Your task to perform on an android device: open device folders in google photos Image 0: 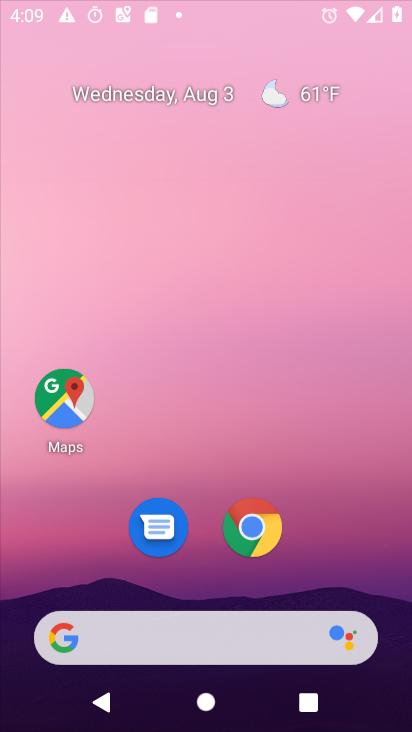
Step 0: drag from (340, 129) to (345, 84)
Your task to perform on an android device: open device folders in google photos Image 1: 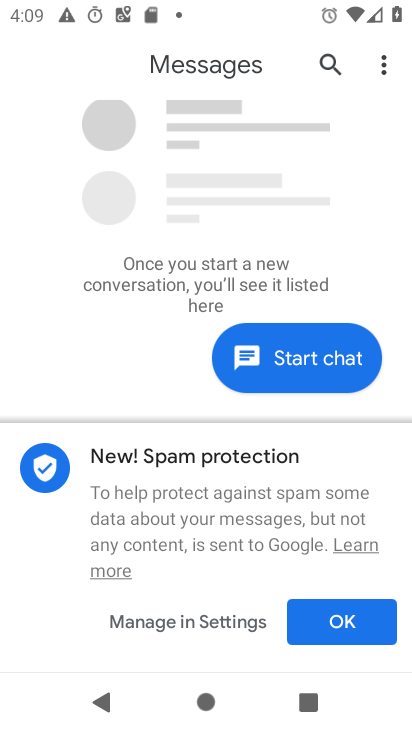
Step 1: press home button
Your task to perform on an android device: open device folders in google photos Image 2: 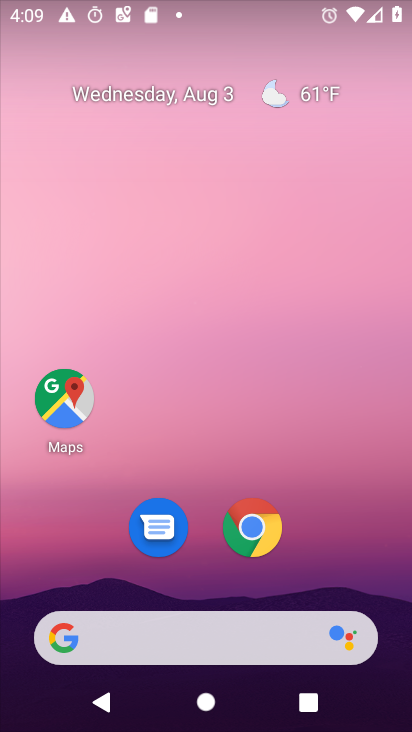
Step 2: drag from (331, 538) to (319, 57)
Your task to perform on an android device: open device folders in google photos Image 3: 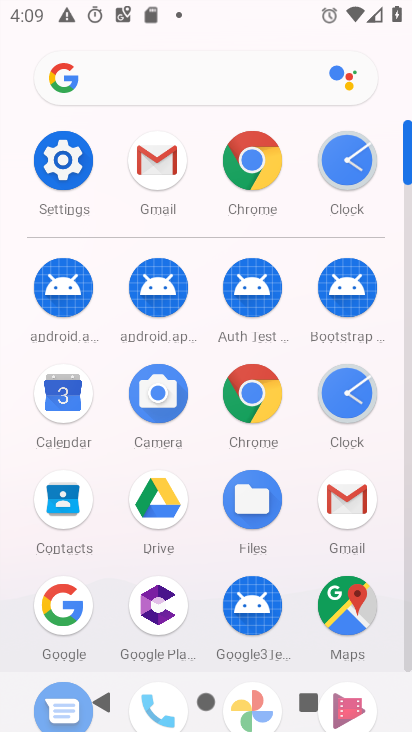
Step 3: drag from (210, 591) to (223, 271)
Your task to perform on an android device: open device folders in google photos Image 4: 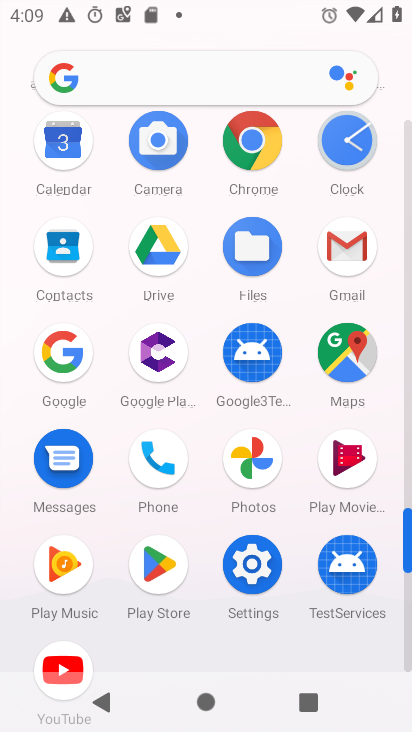
Step 4: click (240, 466)
Your task to perform on an android device: open device folders in google photos Image 5: 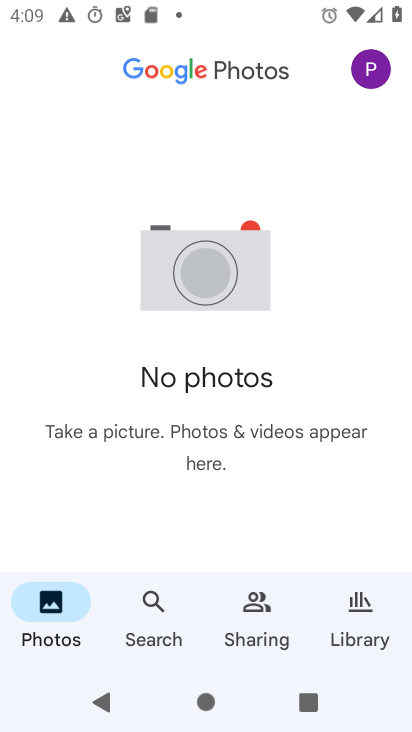
Step 5: click (357, 617)
Your task to perform on an android device: open device folders in google photos Image 6: 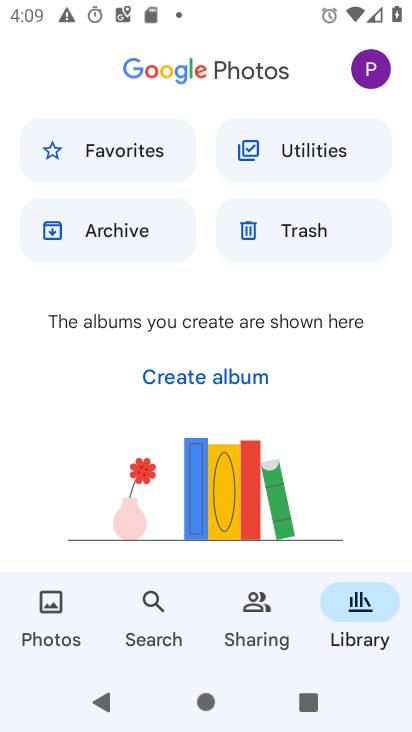
Step 6: click (335, 154)
Your task to perform on an android device: open device folders in google photos Image 7: 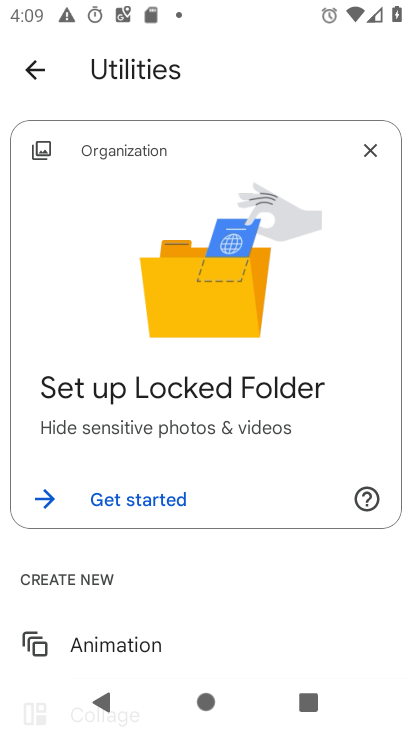
Step 7: drag from (266, 592) to (306, 108)
Your task to perform on an android device: open device folders in google photos Image 8: 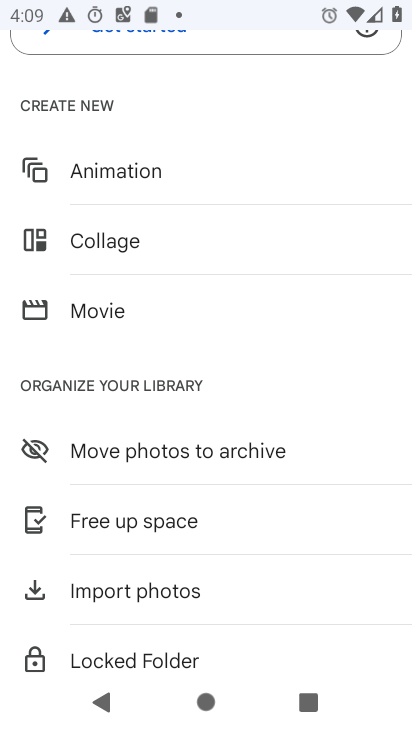
Step 8: drag from (295, 644) to (323, 246)
Your task to perform on an android device: open device folders in google photos Image 9: 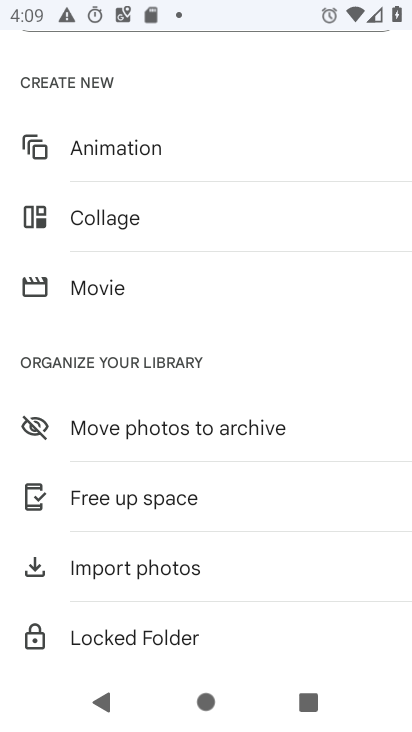
Step 9: press back button
Your task to perform on an android device: open device folders in google photos Image 10: 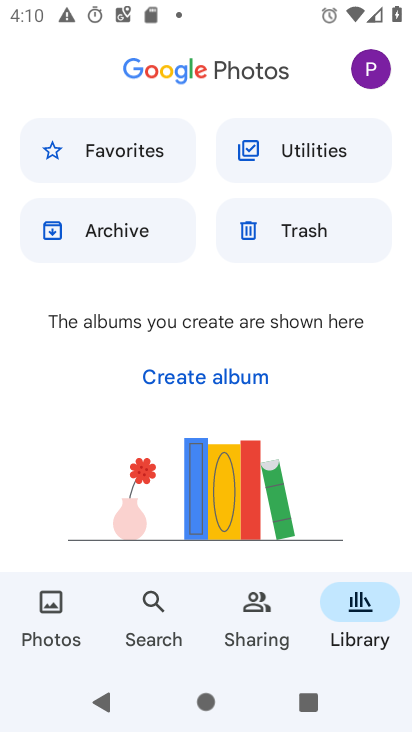
Step 10: click (140, 224)
Your task to perform on an android device: open device folders in google photos Image 11: 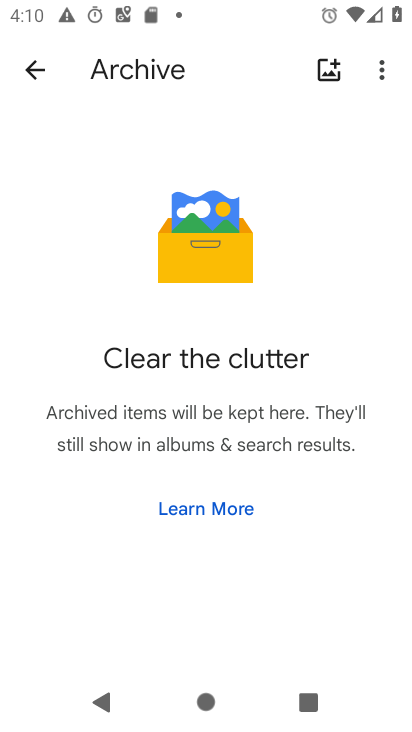
Step 11: click (36, 67)
Your task to perform on an android device: open device folders in google photos Image 12: 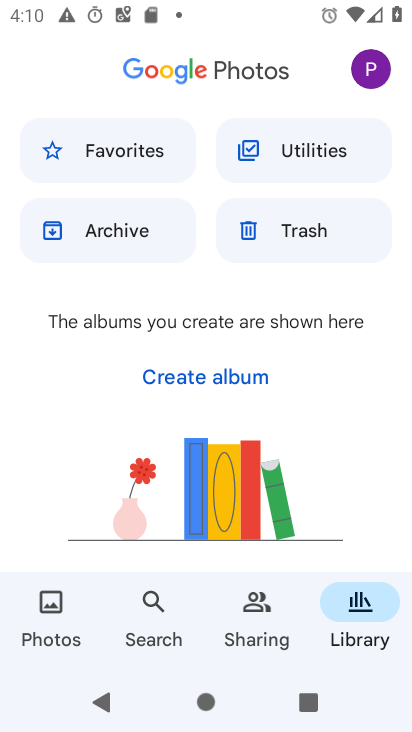
Step 12: click (379, 55)
Your task to perform on an android device: open device folders in google photos Image 13: 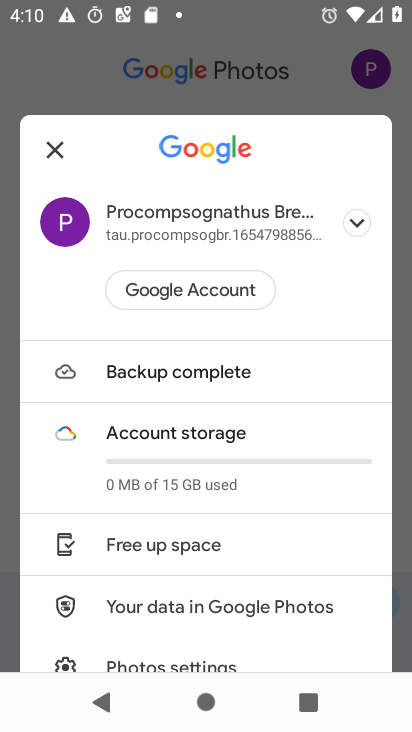
Step 13: drag from (283, 532) to (283, 170)
Your task to perform on an android device: open device folders in google photos Image 14: 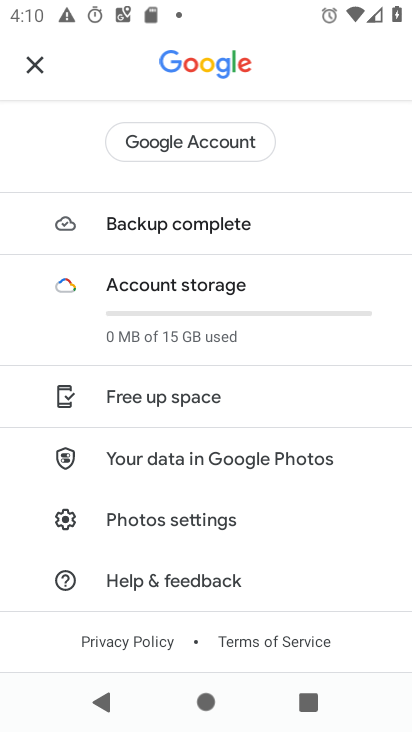
Step 14: click (199, 517)
Your task to perform on an android device: open device folders in google photos Image 15: 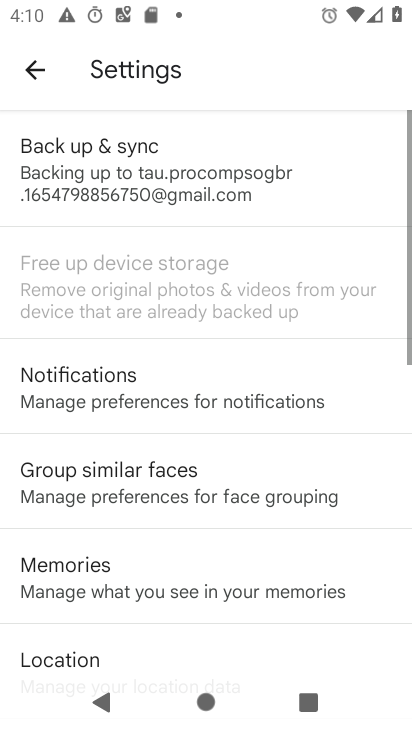
Step 15: drag from (216, 471) to (371, 112)
Your task to perform on an android device: open device folders in google photos Image 16: 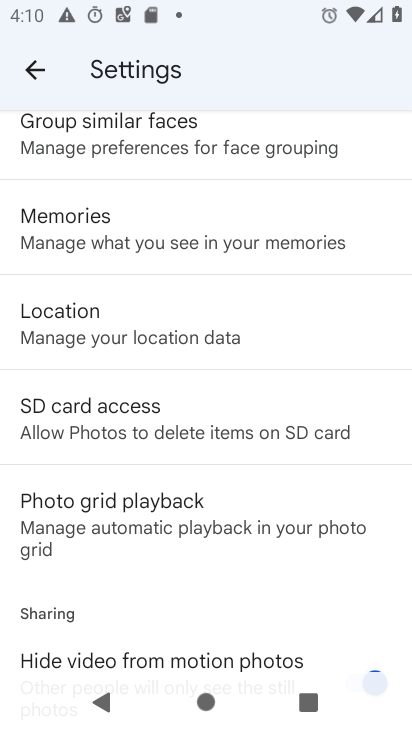
Step 16: drag from (248, 577) to (338, 124)
Your task to perform on an android device: open device folders in google photos Image 17: 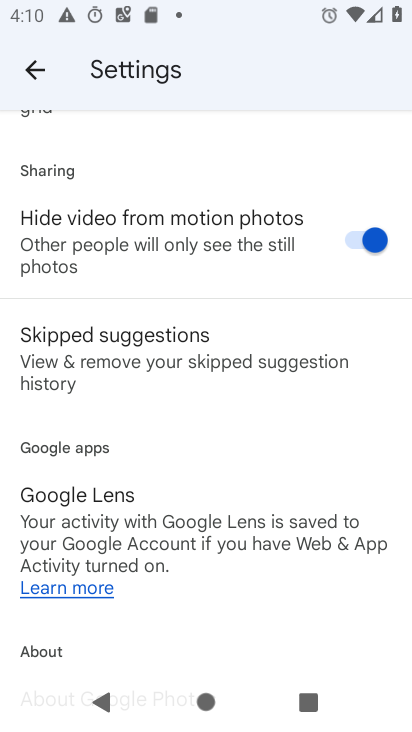
Step 17: drag from (255, 606) to (304, 47)
Your task to perform on an android device: open device folders in google photos Image 18: 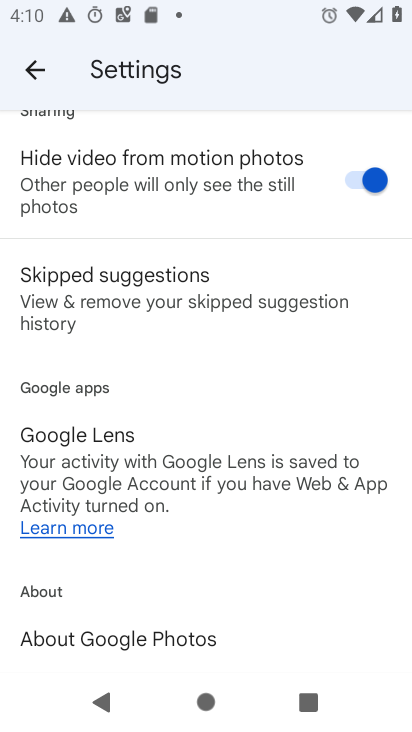
Step 18: drag from (366, 593) to (373, 171)
Your task to perform on an android device: open device folders in google photos Image 19: 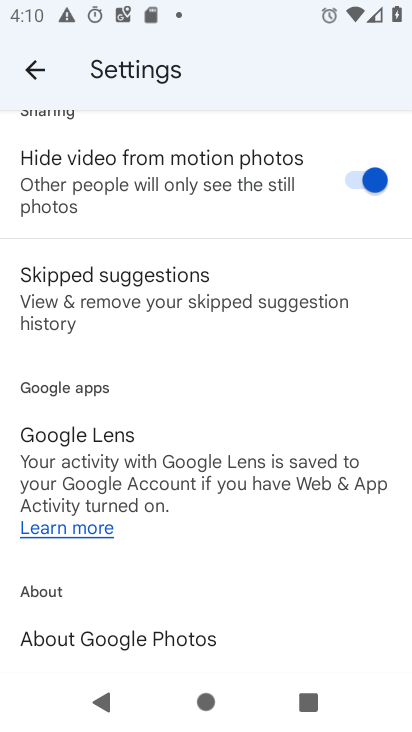
Step 19: drag from (273, 373) to (274, 730)
Your task to perform on an android device: open device folders in google photos Image 20: 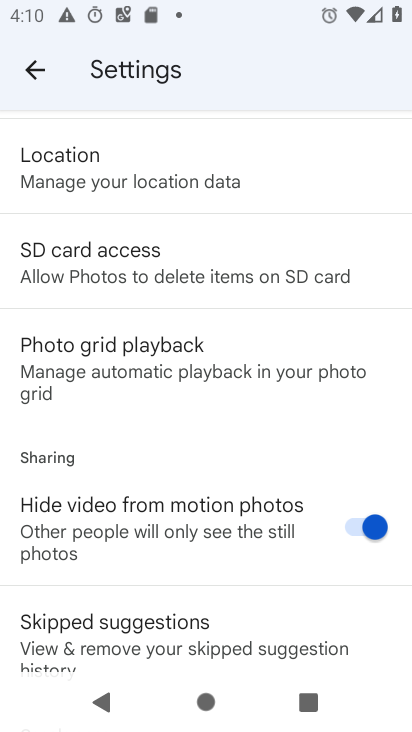
Step 20: drag from (333, 192) to (175, 565)
Your task to perform on an android device: open device folders in google photos Image 21: 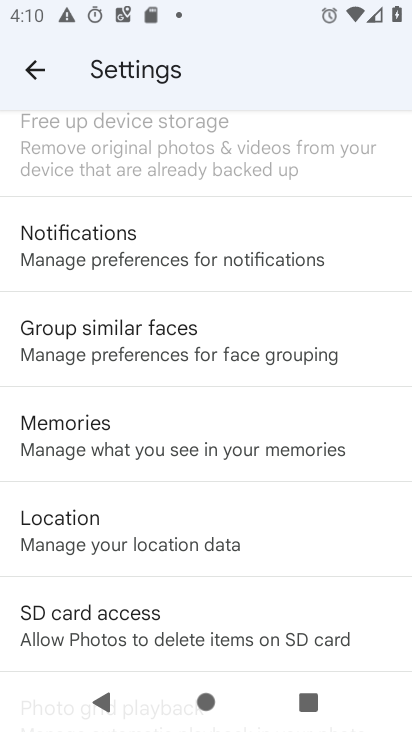
Step 21: drag from (322, 211) to (278, 594)
Your task to perform on an android device: open device folders in google photos Image 22: 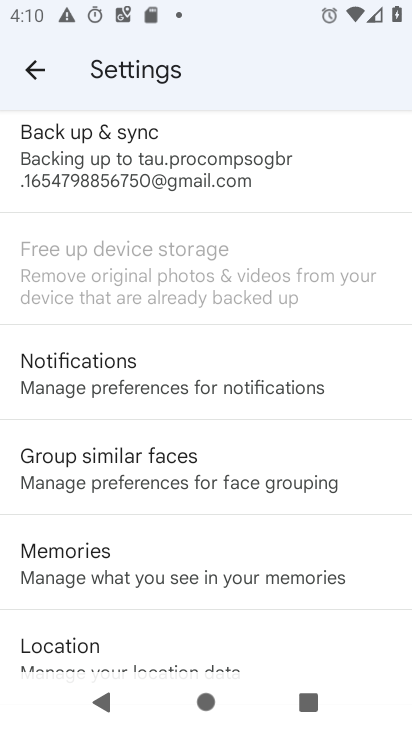
Step 22: click (199, 174)
Your task to perform on an android device: open device folders in google photos Image 23: 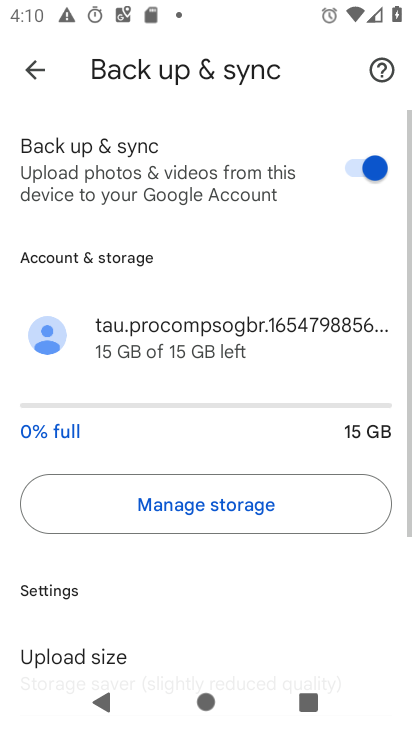
Step 23: drag from (289, 631) to (361, 222)
Your task to perform on an android device: open device folders in google photos Image 24: 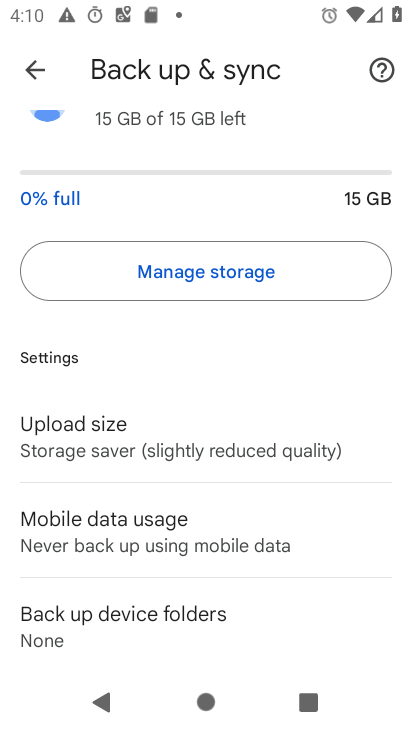
Step 24: drag from (341, 607) to (379, 251)
Your task to perform on an android device: open device folders in google photos Image 25: 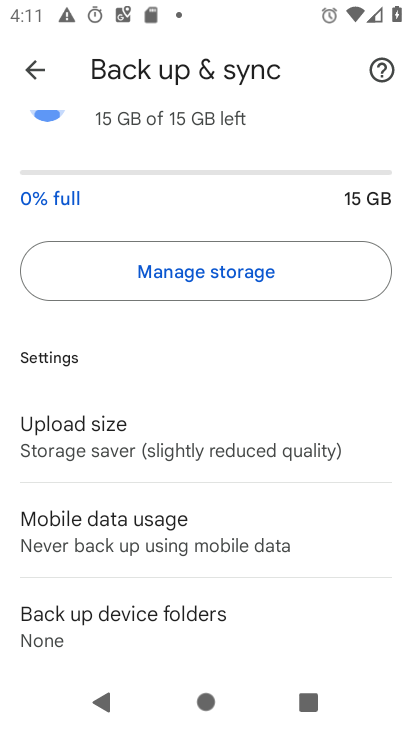
Step 25: click (164, 627)
Your task to perform on an android device: open device folders in google photos Image 26: 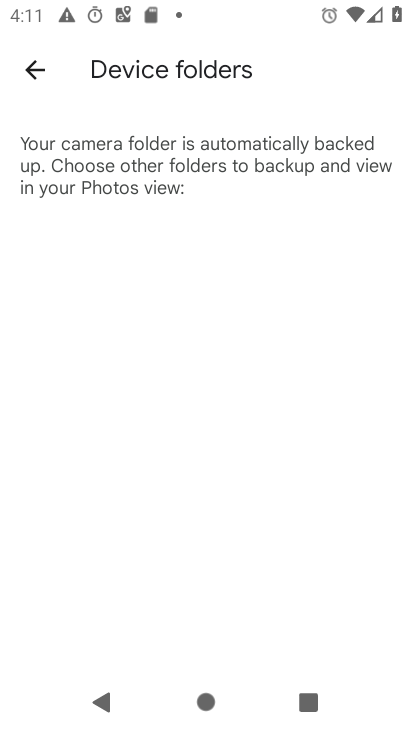
Step 26: click (41, 79)
Your task to perform on an android device: open device folders in google photos Image 27: 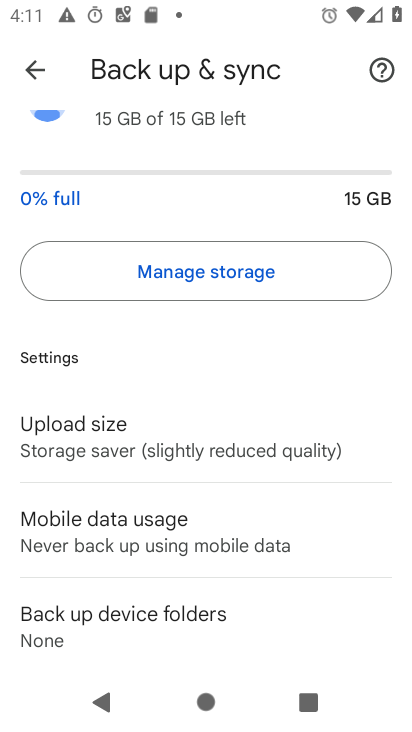
Step 27: click (192, 616)
Your task to perform on an android device: open device folders in google photos Image 28: 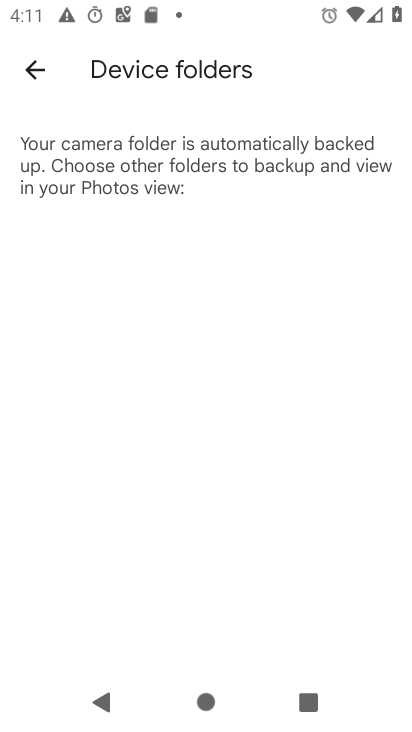
Step 28: task complete